Your task to perform on an android device: Open ESPN.com Image 0: 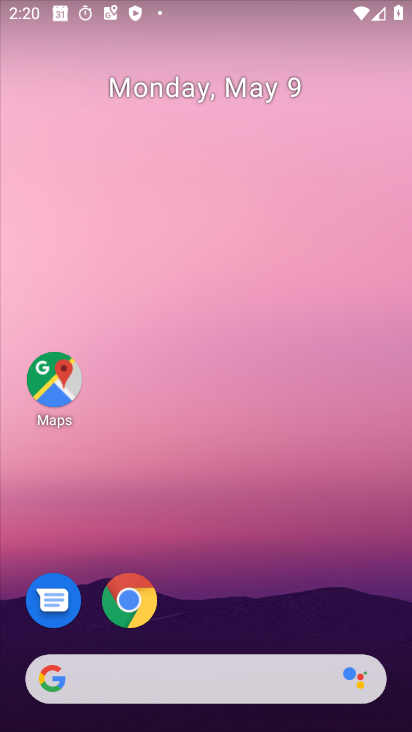
Step 0: drag from (298, 587) to (273, 201)
Your task to perform on an android device: Open ESPN.com Image 1: 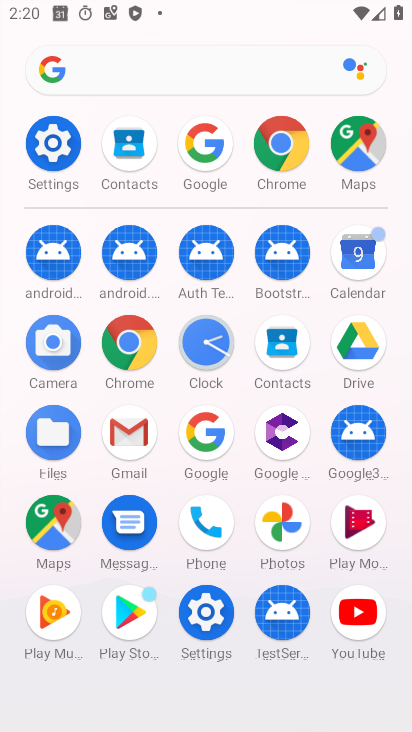
Step 1: click (139, 362)
Your task to perform on an android device: Open ESPN.com Image 2: 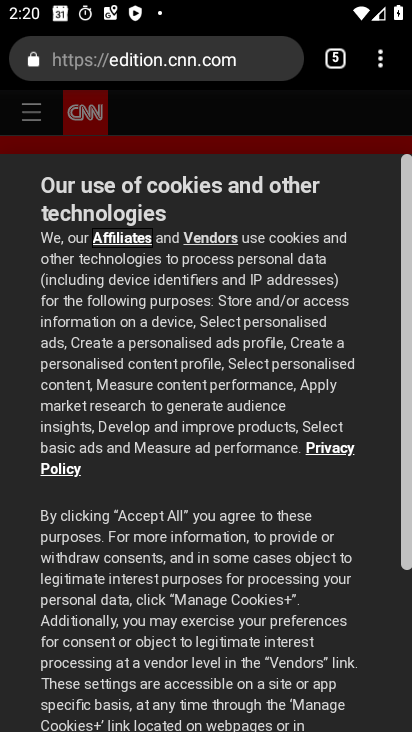
Step 2: task complete